Your task to perform on an android device: What is the news today? Image 0: 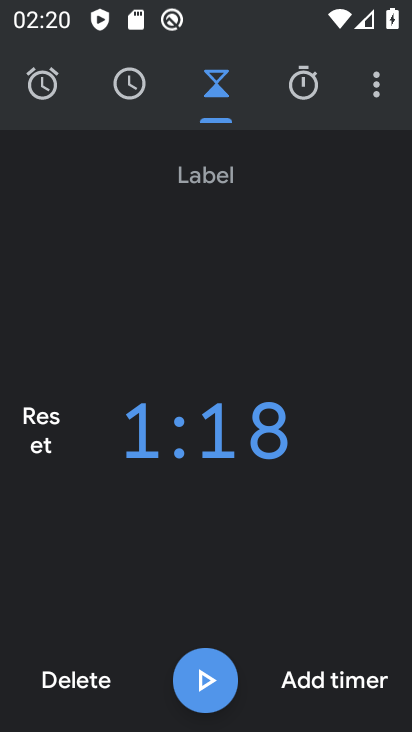
Step 0: press home button
Your task to perform on an android device: What is the news today? Image 1: 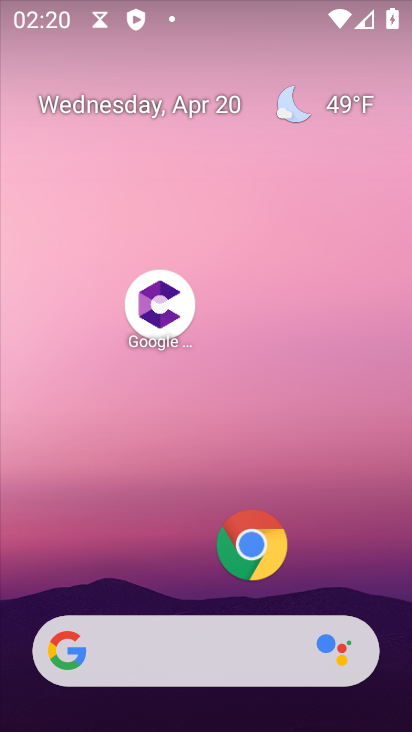
Step 1: drag from (163, 592) to (265, 63)
Your task to perform on an android device: What is the news today? Image 2: 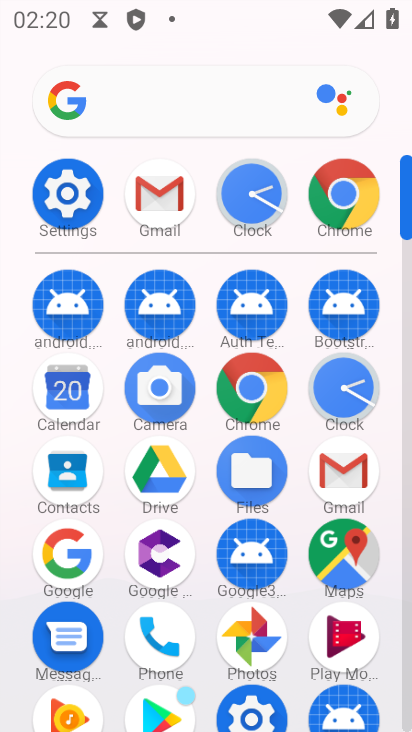
Step 2: click (69, 555)
Your task to perform on an android device: What is the news today? Image 3: 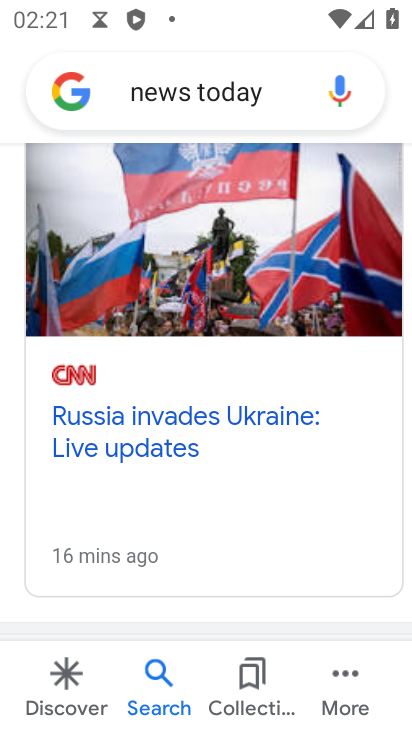
Step 3: task complete